Your task to perform on an android device: empty trash in the gmail app Image 0: 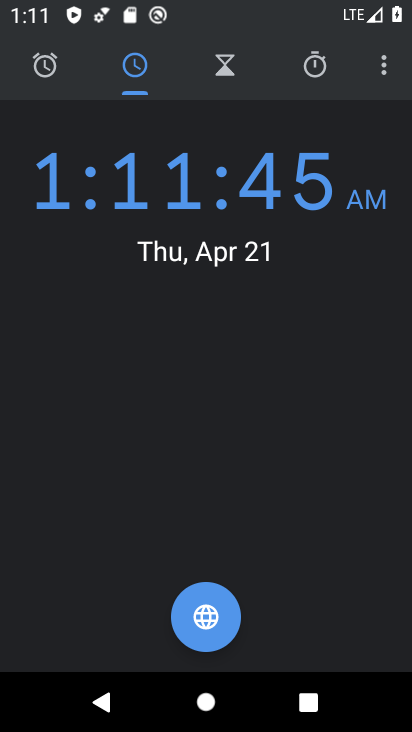
Step 0: press home button
Your task to perform on an android device: empty trash in the gmail app Image 1: 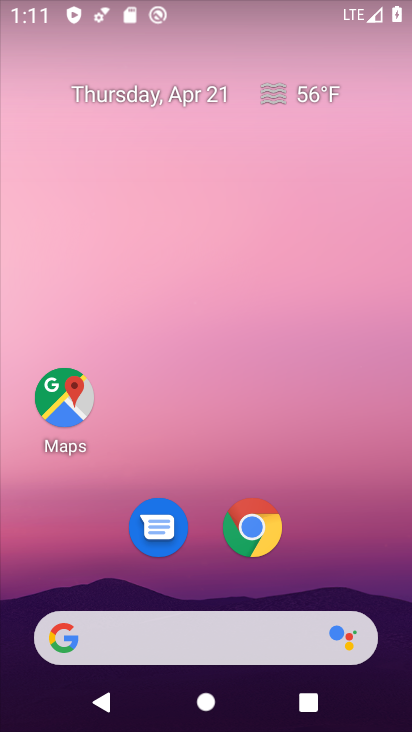
Step 1: drag from (203, 577) to (217, 116)
Your task to perform on an android device: empty trash in the gmail app Image 2: 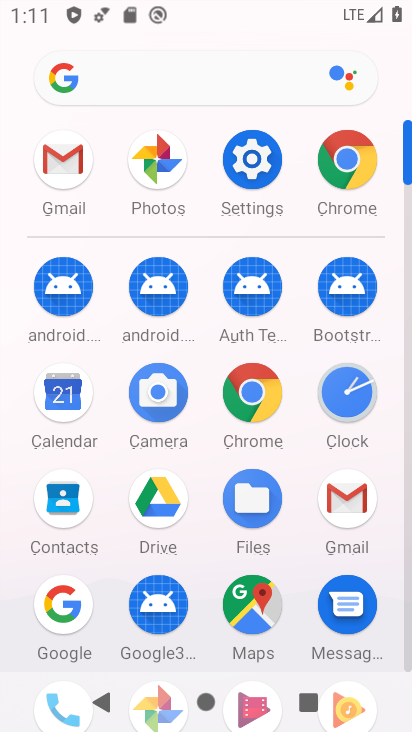
Step 2: click (65, 155)
Your task to perform on an android device: empty trash in the gmail app Image 3: 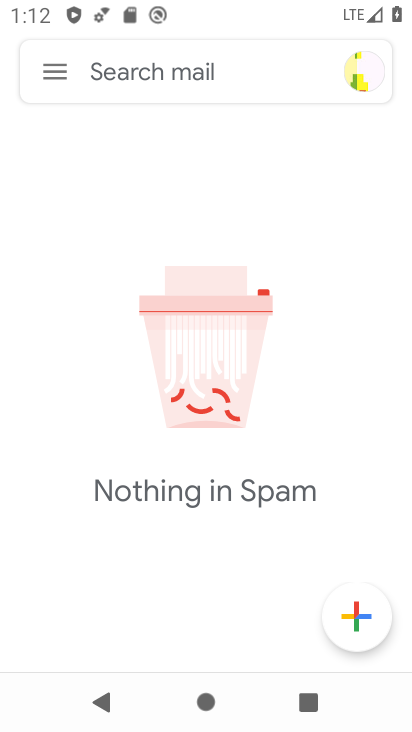
Step 3: click (53, 71)
Your task to perform on an android device: empty trash in the gmail app Image 4: 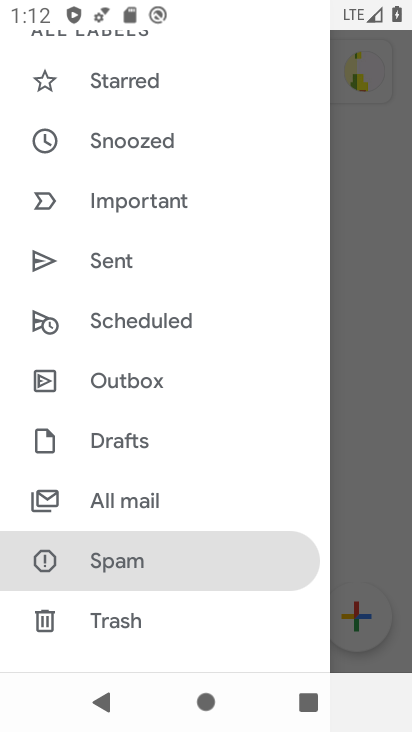
Step 4: click (116, 618)
Your task to perform on an android device: empty trash in the gmail app Image 5: 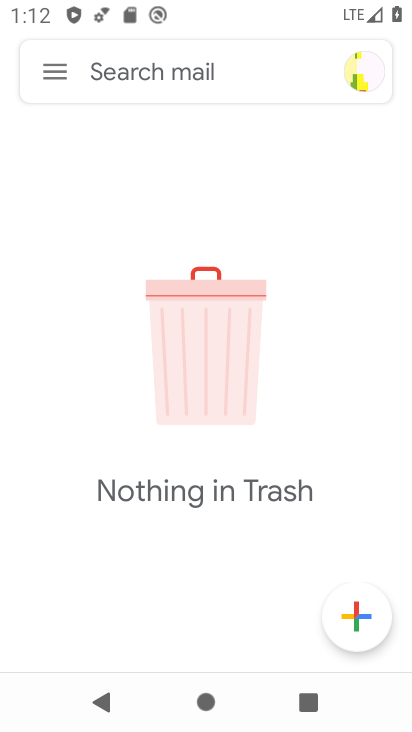
Step 5: task complete